Your task to perform on an android device: empty trash in the gmail app Image 0: 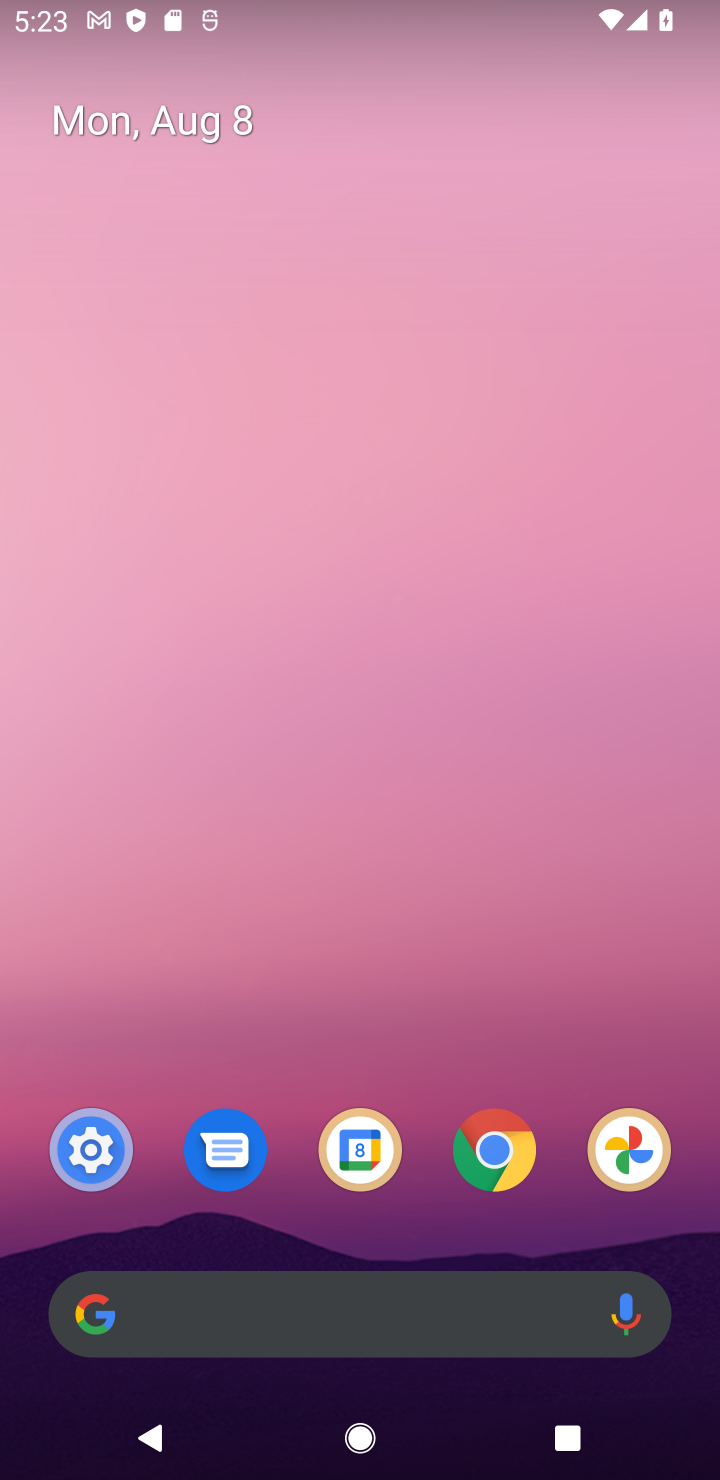
Step 0: drag from (431, 1253) to (377, 162)
Your task to perform on an android device: empty trash in the gmail app Image 1: 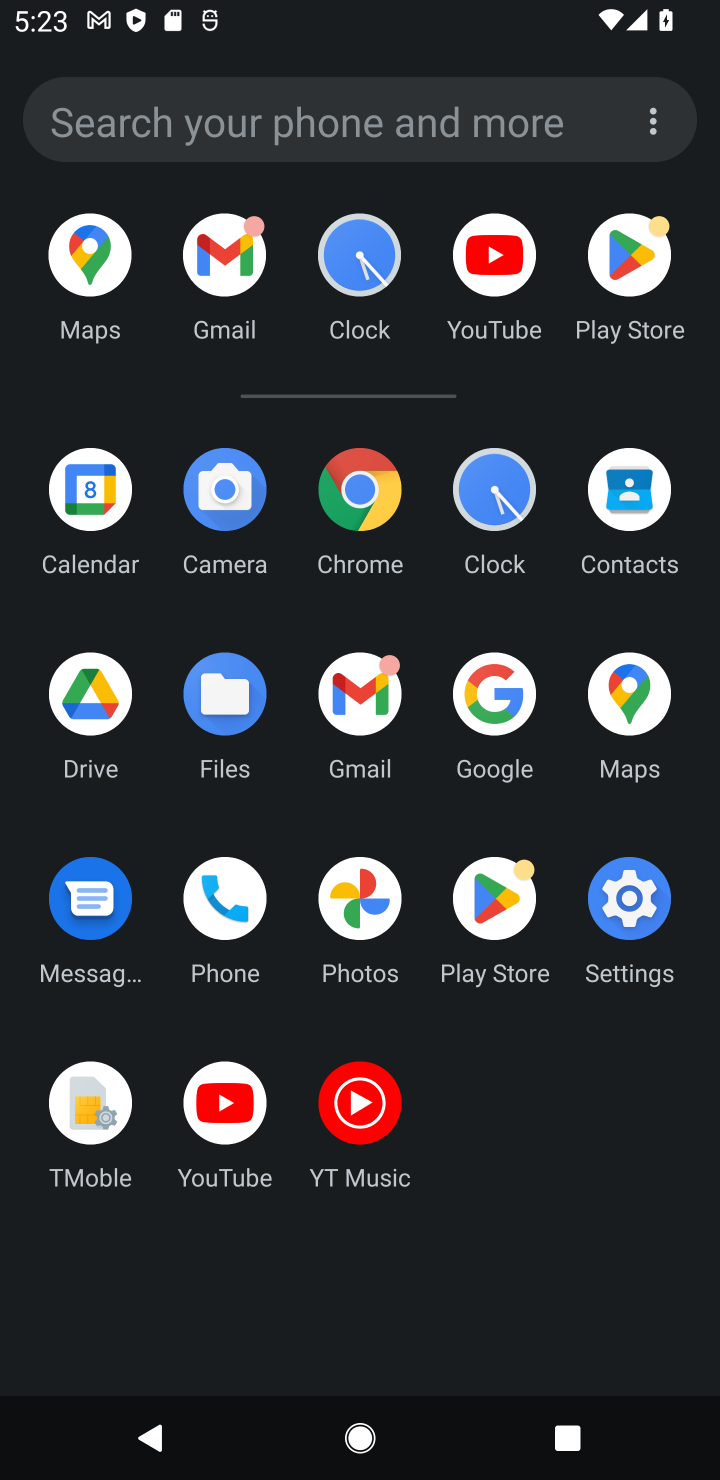
Step 1: click (374, 709)
Your task to perform on an android device: empty trash in the gmail app Image 2: 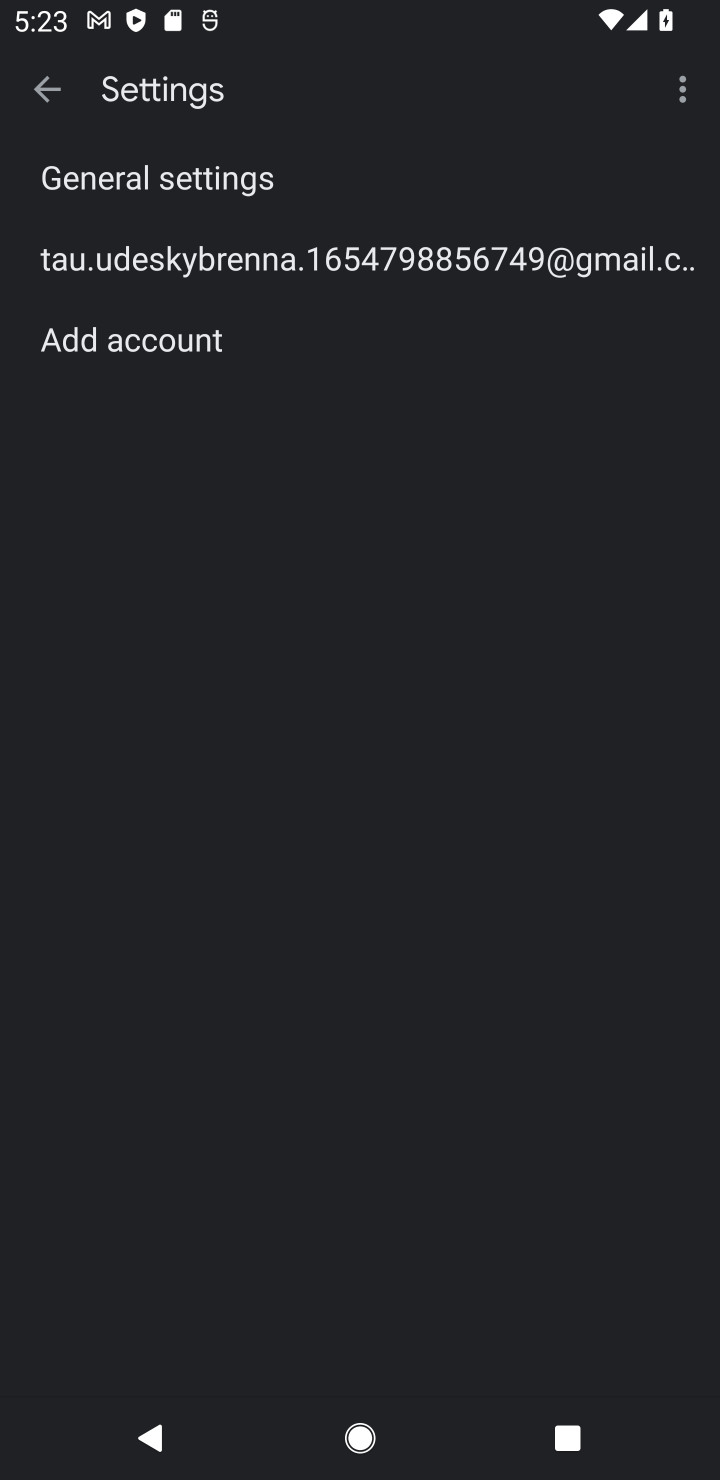
Step 2: task complete